Your task to perform on an android device: clear all cookies in the chrome app Image 0: 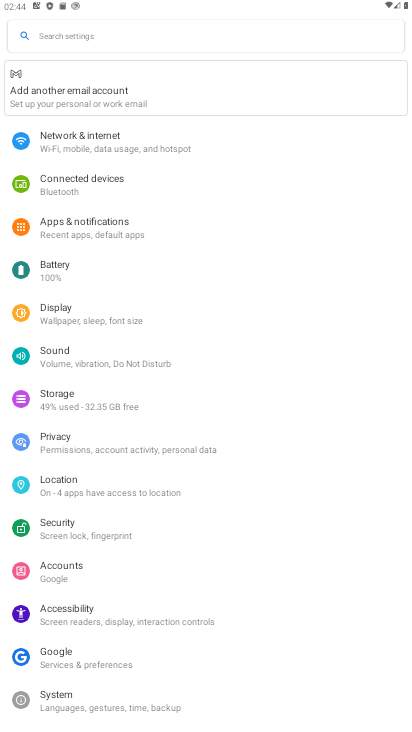
Step 0: press home button
Your task to perform on an android device: clear all cookies in the chrome app Image 1: 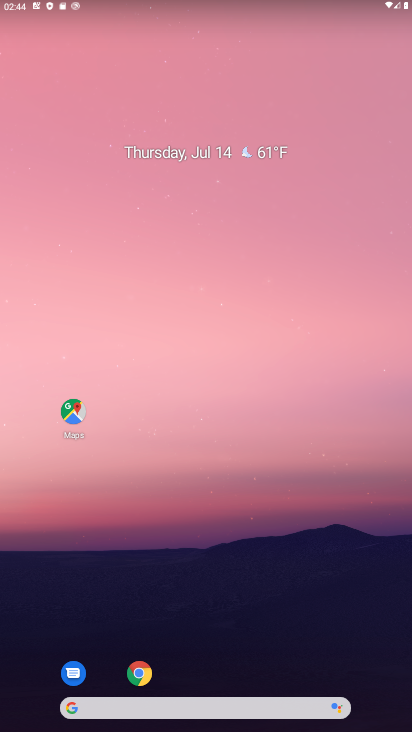
Step 1: click (153, 673)
Your task to perform on an android device: clear all cookies in the chrome app Image 2: 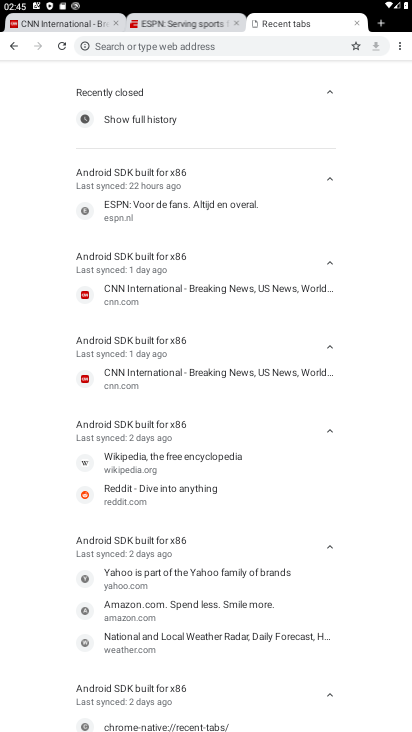
Step 2: task complete